Your task to perform on an android device: Open calendar and show me the second week of next month Image 0: 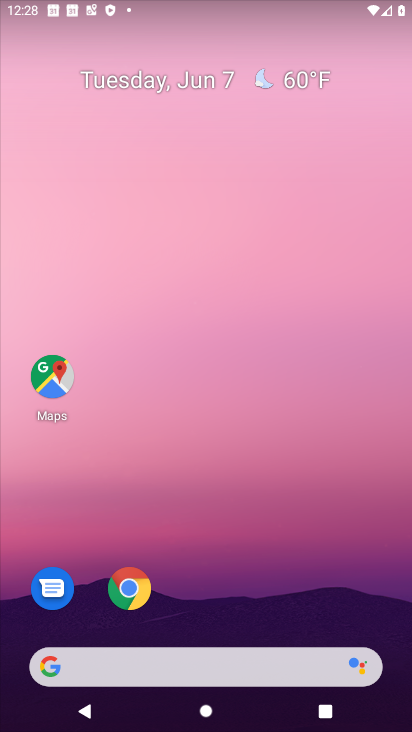
Step 0: drag from (143, 698) to (270, 1)
Your task to perform on an android device: Open calendar and show me the second week of next month Image 1: 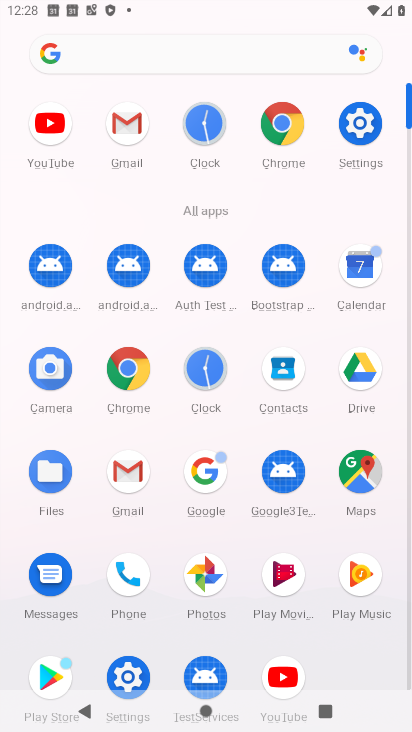
Step 1: click (357, 266)
Your task to perform on an android device: Open calendar and show me the second week of next month Image 2: 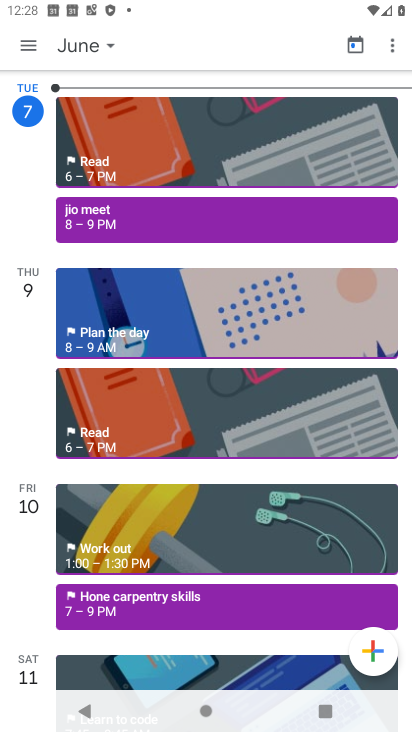
Step 2: click (82, 52)
Your task to perform on an android device: Open calendar and show me the second week of next month Image 3: 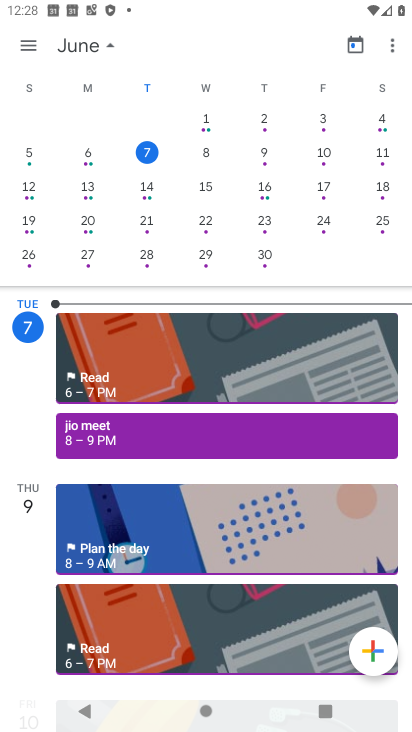
Step 3: drag from (393, 201) to (22, 192)
Your task to perform on an android device: Open calendar and show me the second week of next month Image 4: 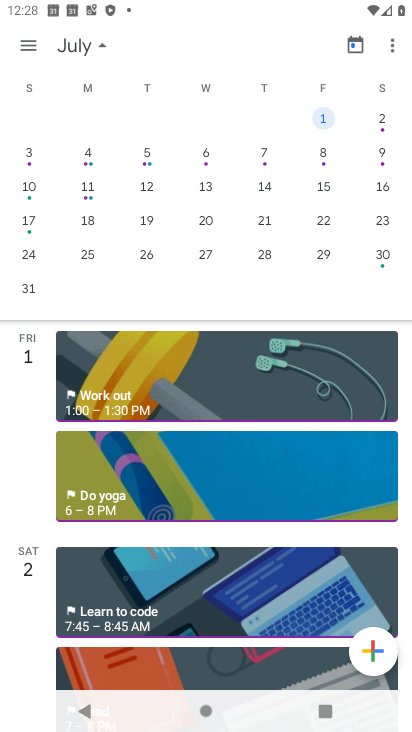
Step 4: click (371, 124)
Your task to perform on an android device: Open calendar and show me the second week of next month Image 5: 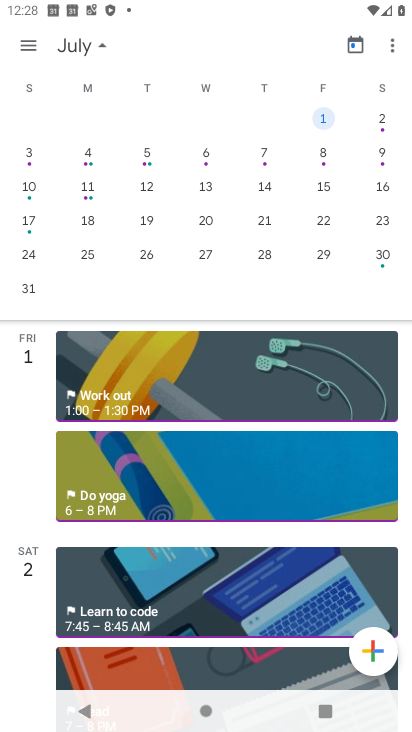
Step 5: click (35, 161)
Your task to perform on an android device: Open calendar and show me the second week of next month Image 6: 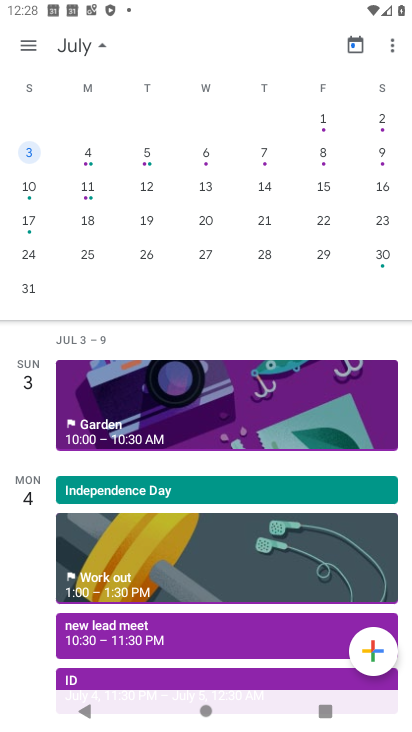
Step 6: task complete